Your task to perform on an android device: Check the weather Image 0: 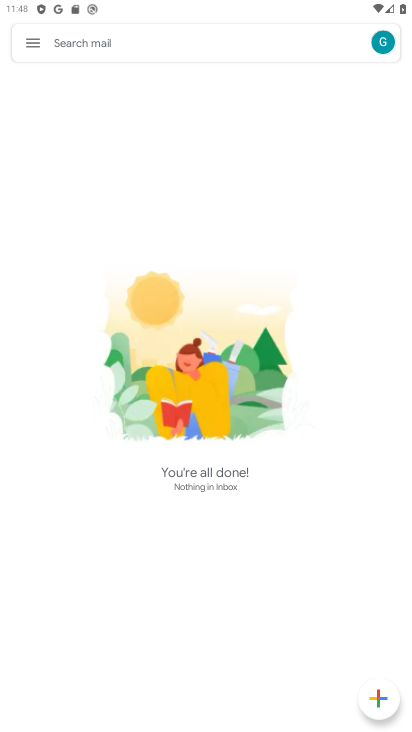
Step 0: press home button
Your task to perform on an android device: Check the weather Image 1: 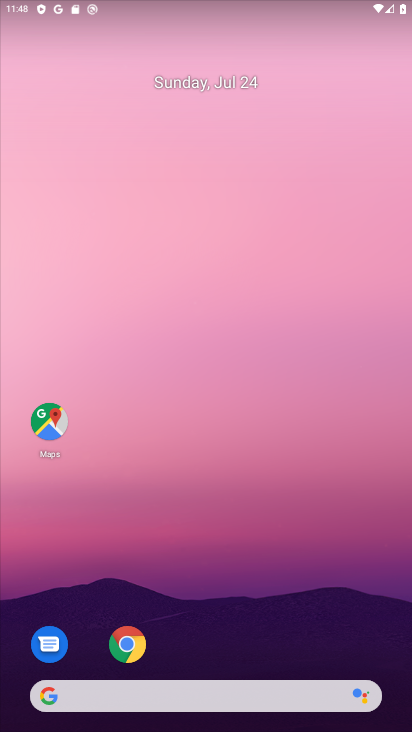
Step 1: click (204, 700)
Your task to perform on an android device: Check the weather Image 2: 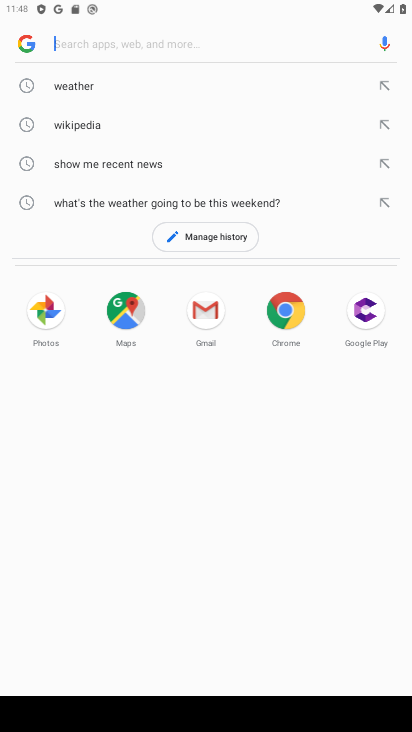
Step 2: click (110, 78)
Your task to perform on an android device: Check the weather Image 3: 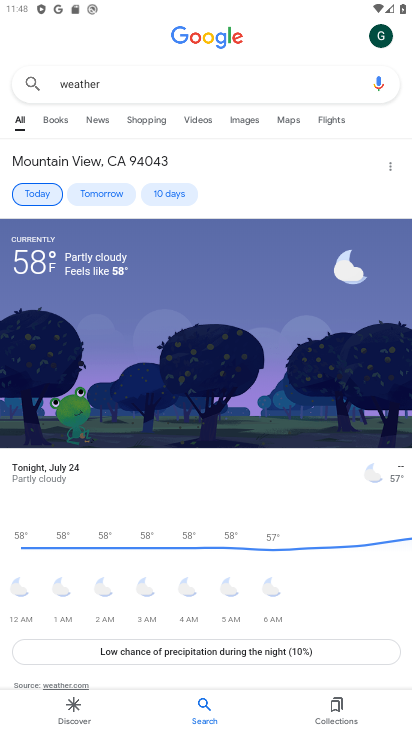
Step 3: task complete